Your task to perform on an android device: turn off sleep mode Image 0: 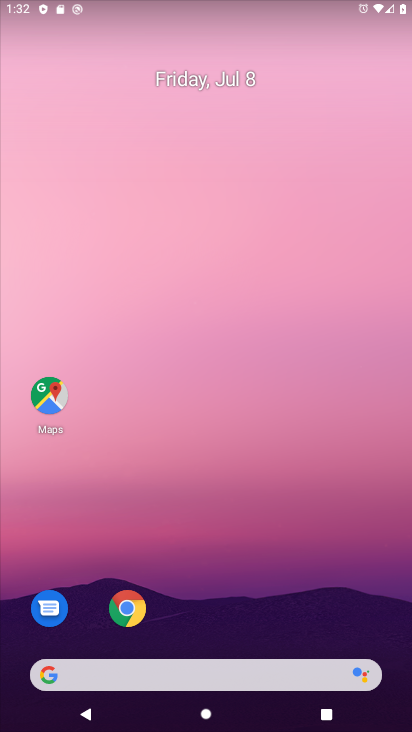
Step 0: drag from (154, 6) to (89, 471)
Your task to perform on an android device: turn off sleep mode Image 1: 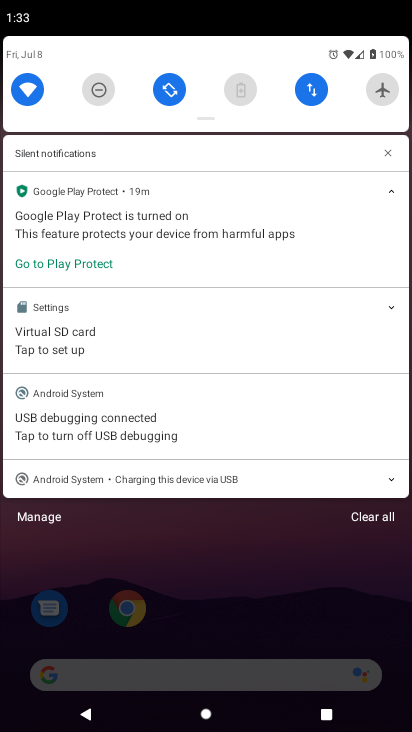
Step 1: drag from (187, 68) to (179, 439)
Your task to perform on an android device: turn off sleep mode Image 2: 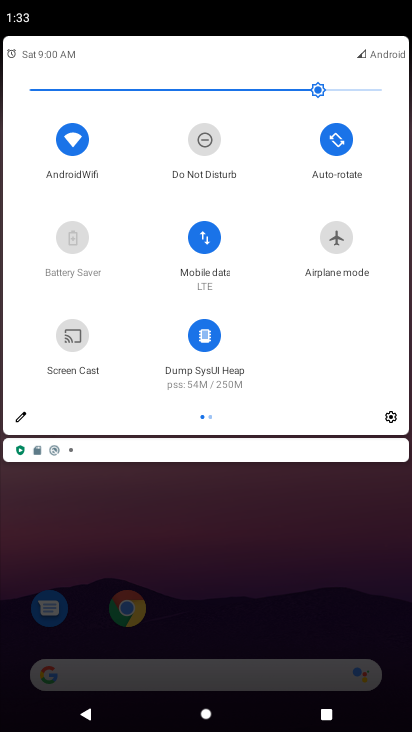
Step 2: click (393, 406)
Your task to perform on an android device: turn off sleep mode Image 3: 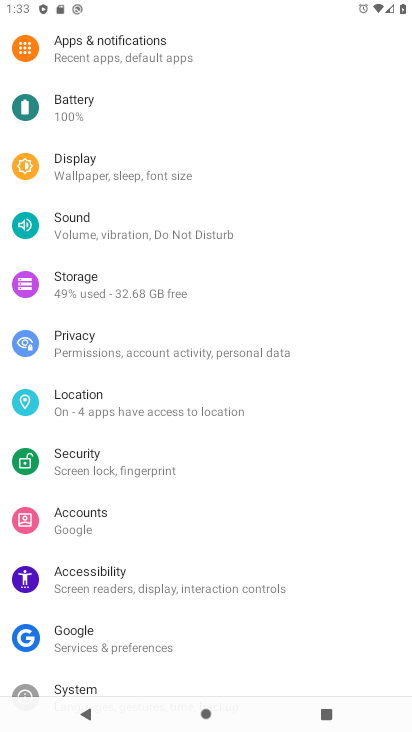
Step 3: task complete